Your task to perform on an android device: Open Yahoo.com Image 0: 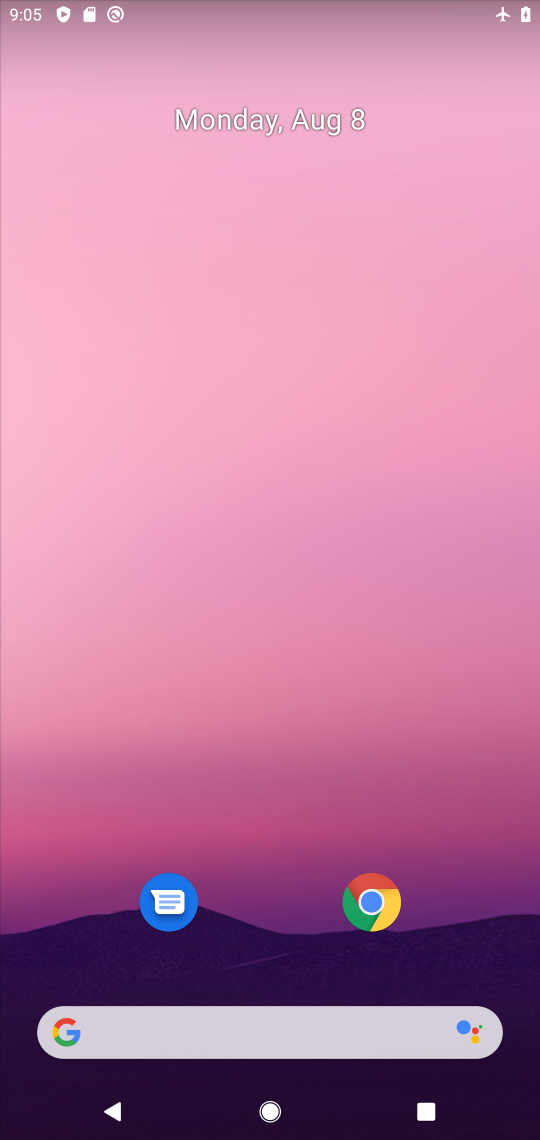
Step 0: click (345, 928)
Your task to perform on an android device: Open Yahoo.com Image 1: 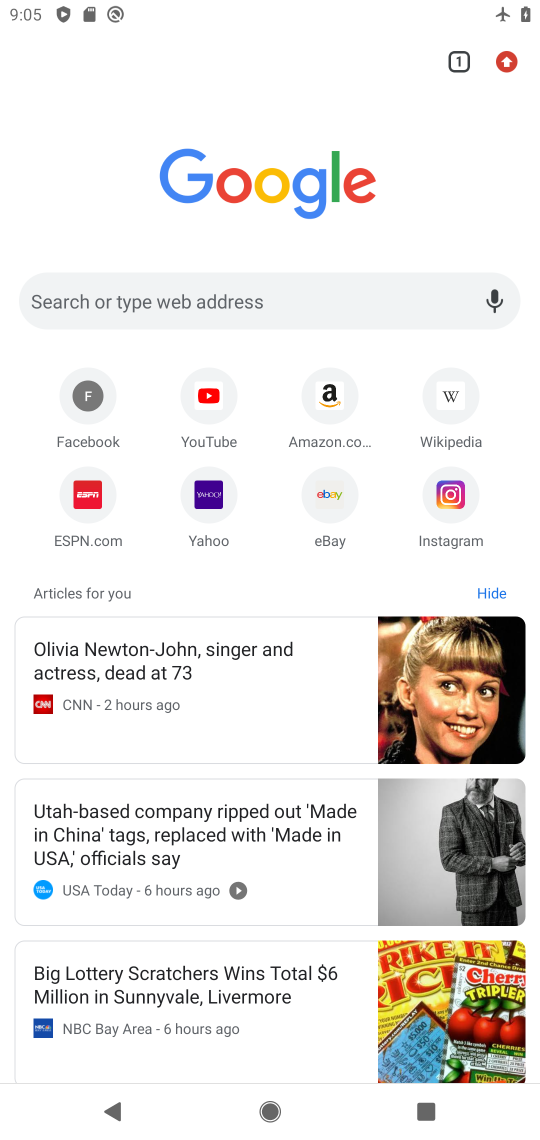
Step 1: click (224, 495)
Your task to perform on an android device: Open Yahoo.com Image 2: 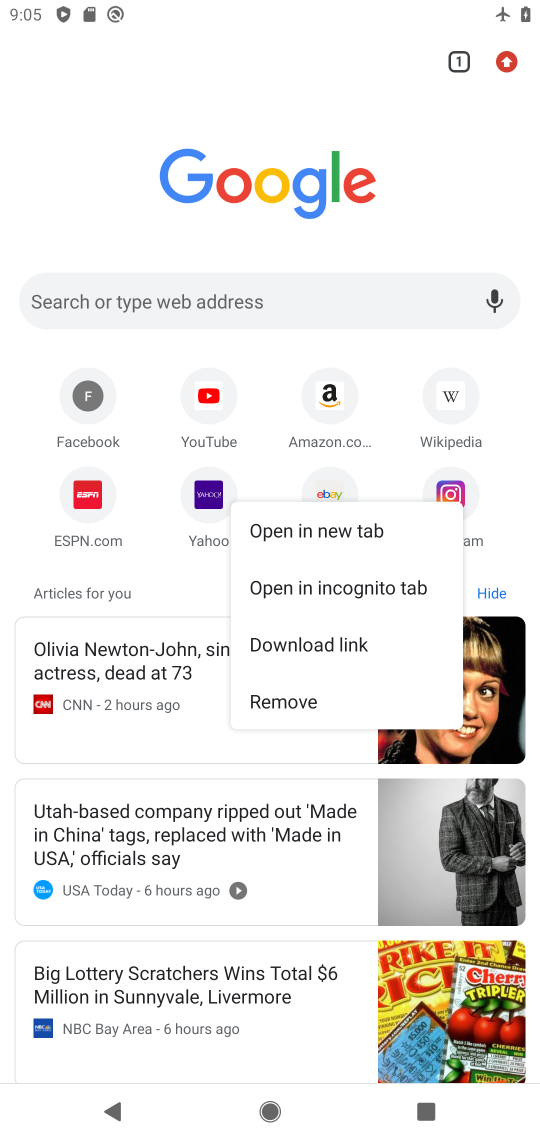
Step 2: click (203, 499)
Your task to perform on an android device: Open Yahoo.com Image 3: 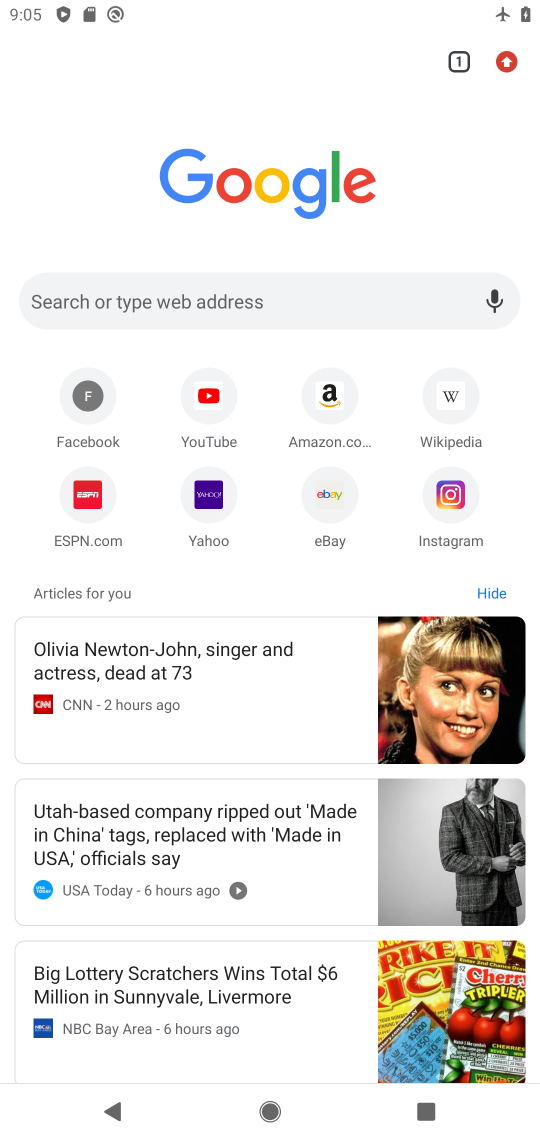
Step 3: click (220, 506)
Your task to perform on an android device: Open Yahoo.com Image 4: 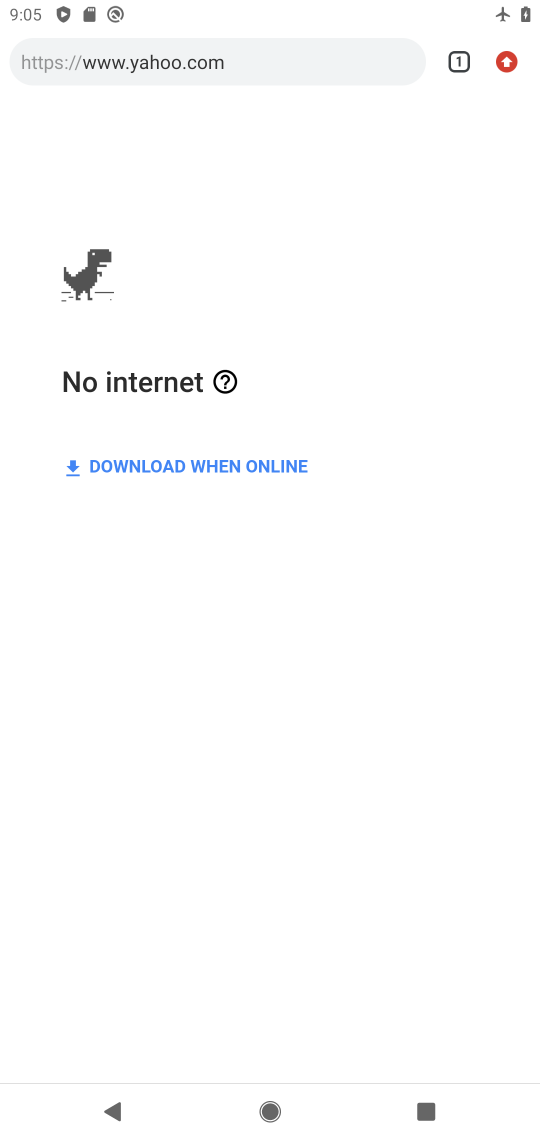
Step 4: task complete